Your task to perform on an android device: open the mobile data screen to see how much data has been used Image 0: 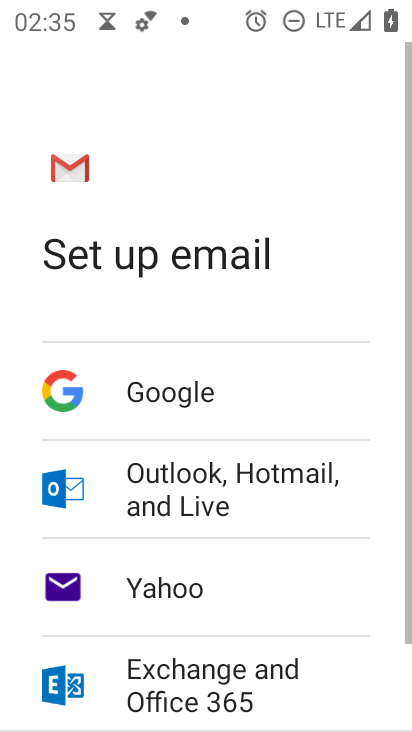
Step 0: press home button
Your task to perform on an android device: open the mobile data screen to see how much data has been used Image 1: 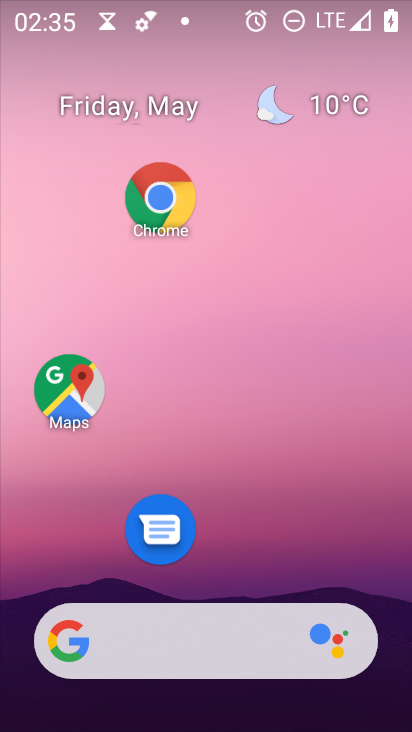
Step 1: drag from (249, 501) to (249, 211)
Your task to perform on an android device: open the mobile data screen to see how much data has been used Image 2: 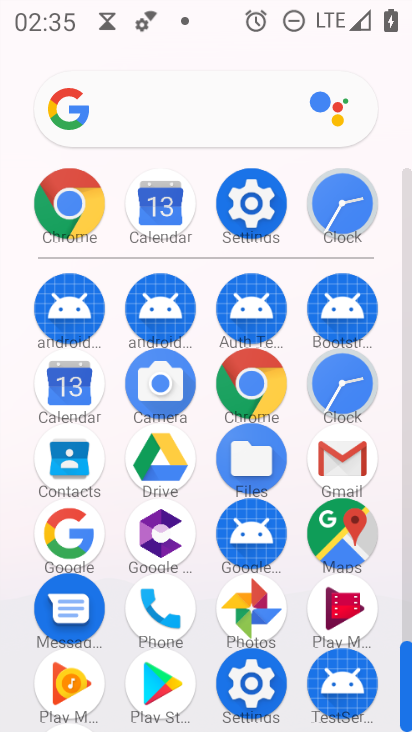
Step 2: click (240, 202)
Your task to perform on an android device: open the mobile data screen to see how much data has been used Image 3: 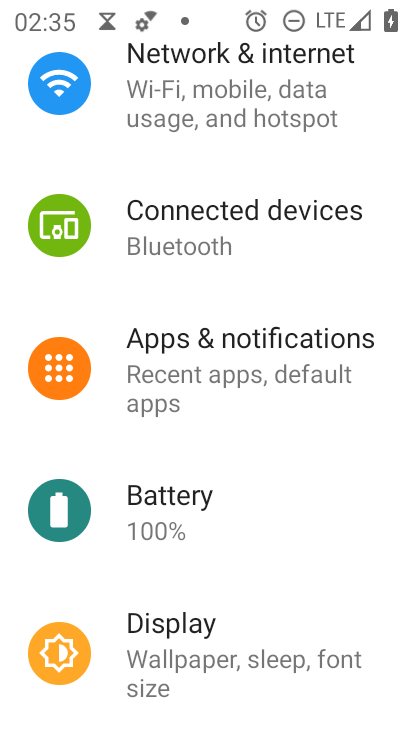
Step 3: drag from (216, 162) to (204, 462)
Your task to perform on an android device: open the mobile data screen to see how much data has been used Image 4: 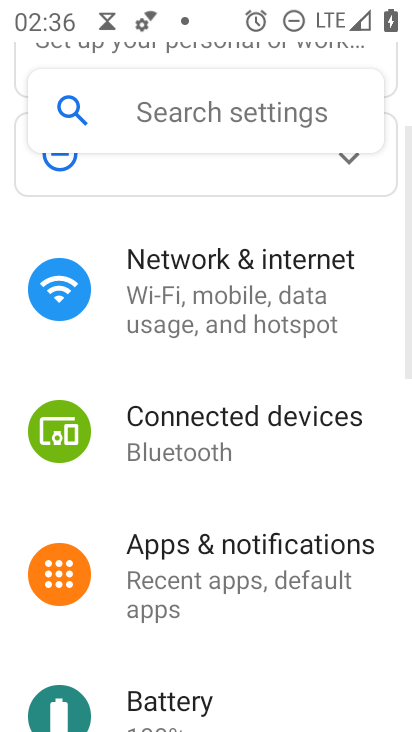
Step 4: click (208, 295)
Your task to perform on an android device: open the mobile data screen to see how much data has been used Image 5: 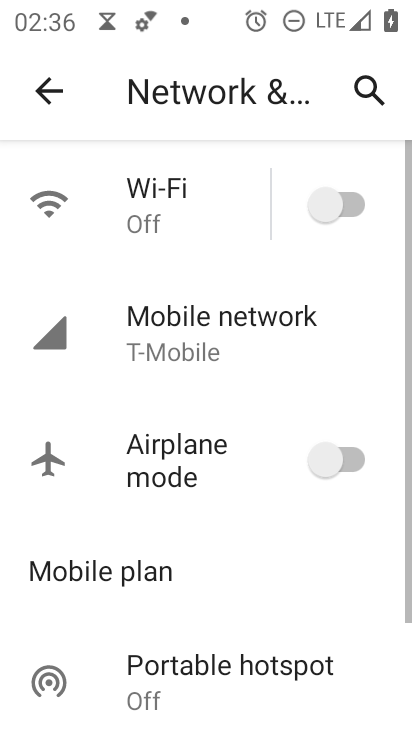
Step 5: click (234, 325)
Your task to perform on an android device: open the mobile data screen to see how much data has been used Image 6: 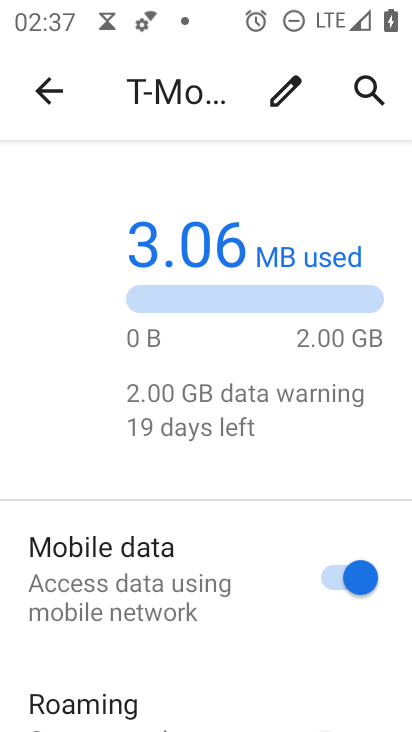
Step 6: task complete